Your task to perform on an android device: turn on the 24-hour format for clock Image 0: 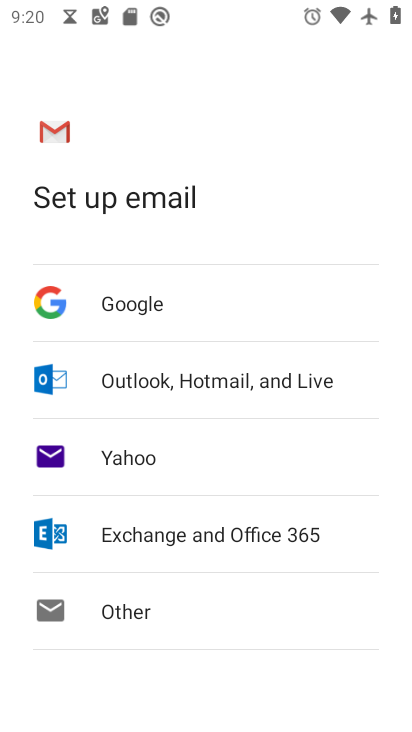
Step 0: press home button
Your task to perform on an android device: turn on the 24-hour format for clock Image 1: 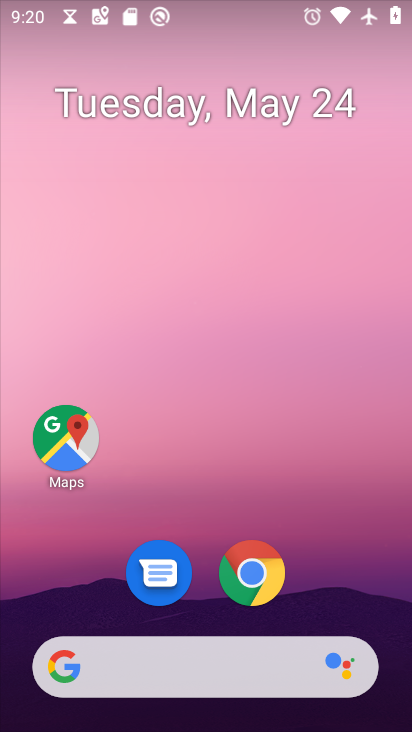
Step 1: drag from (369, 566) to (285, 11)
Your task to perform on an android device: turn on the 24-hour format for clock Image 2: 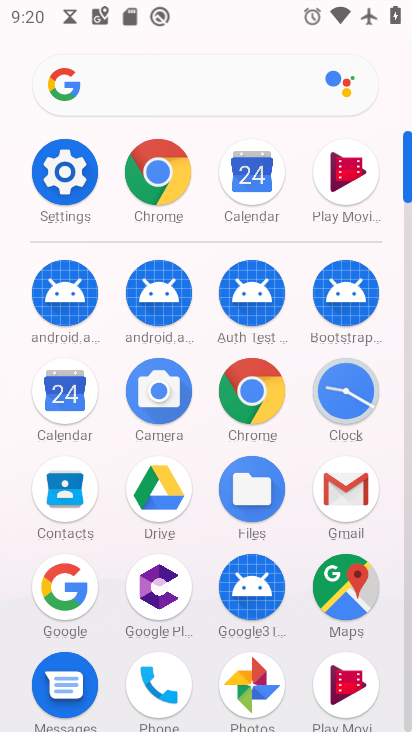
Step 2: click (349, 402)
Your task to perform on an android device: turn on the 24-hour format for clock Image 3: 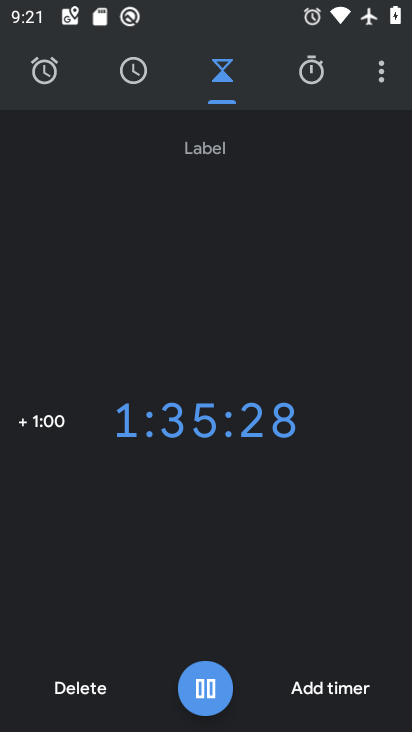
Step 3: click (389, 83)
Your task to perform on an android device: turn on the 24-hour format for clock Image 4: 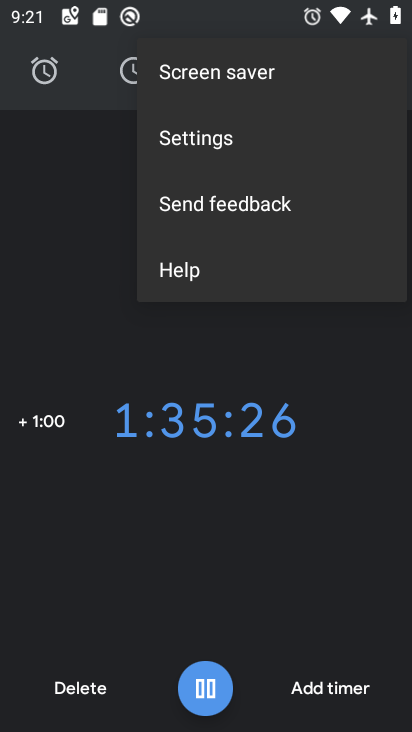
Step 4: click (222, 145)
Your task to perform on an android device: turn on the 24-hour format for clock Image 5: 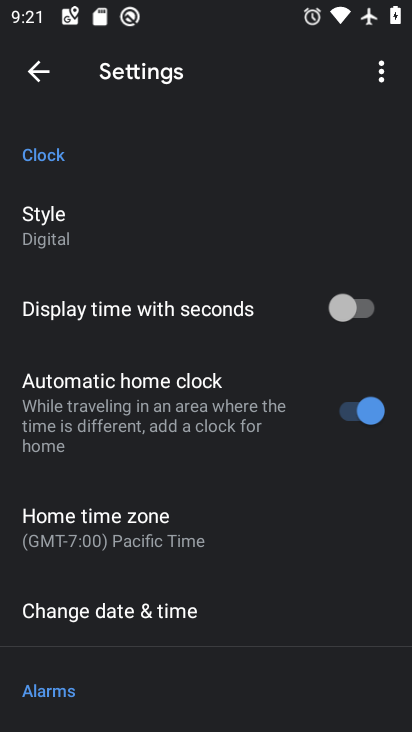
Step 5: drag from (228, 650) to (273, 231)
Your task to perform on an android device: turn on the 24-hour format for clock Image 6: 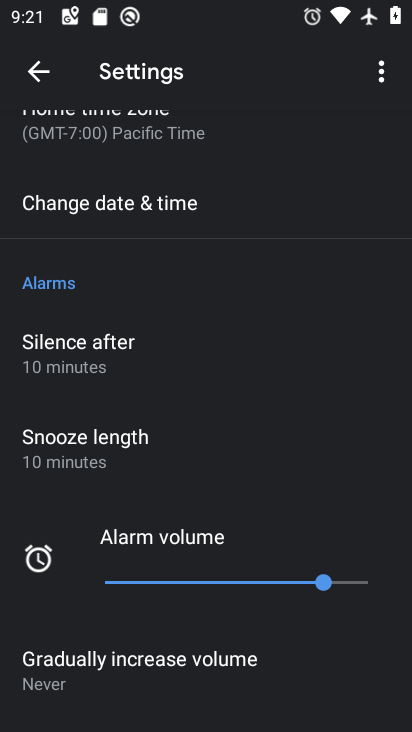
Step 6: drag from (219, 677) to (266, 128)
Your task to perform on an android device: turn on the 24-hour format for clock Image 7: 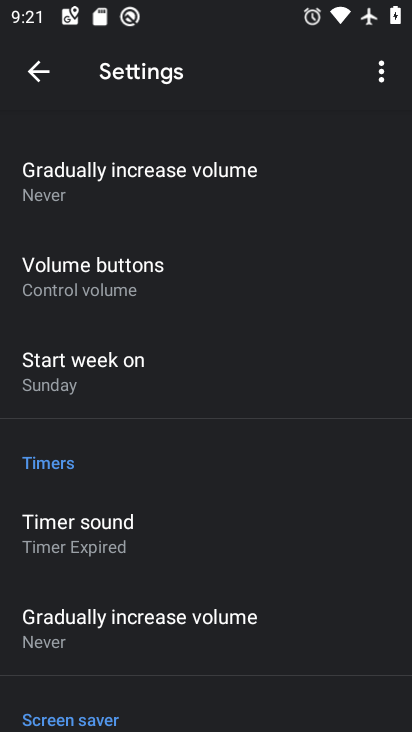
Step 7: drag from (261, 617) to (279, 82)
Your task to perform on an android device: turn on the 24-hour format for clock Image 8: 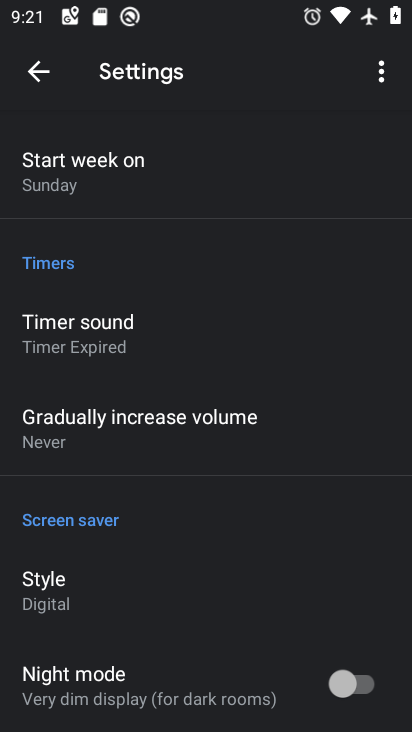
Step 8: drag from (131, 656) to (234, 295)
Your task to perform on an android device: turn on the 24-hour format for clock Image 9: 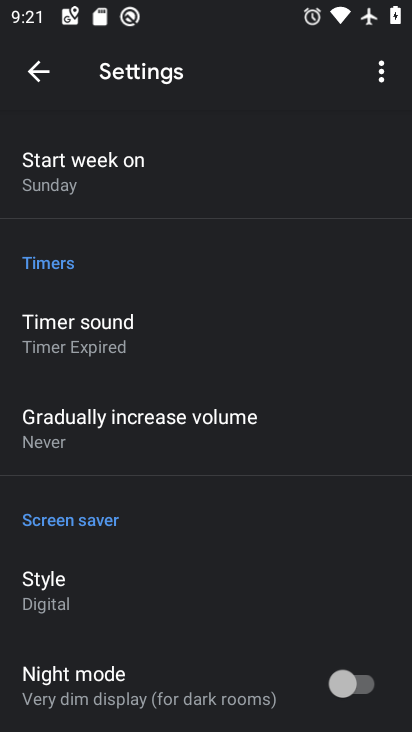
Step 9: drag from (282, 271) to (309, 701)
Your task to perform on an android device: turn on the 24-hour format for clock Image 10: 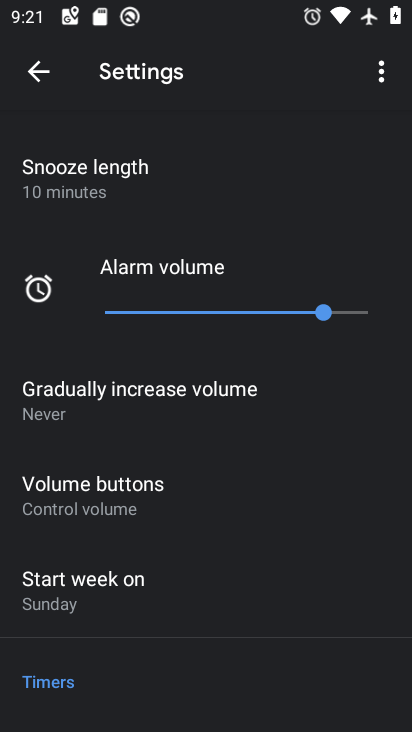
Step 10: drag from (336, 458) to (345, 686)
Your task to perform on an android device: turn on the 24-hour format for clock Image 11: 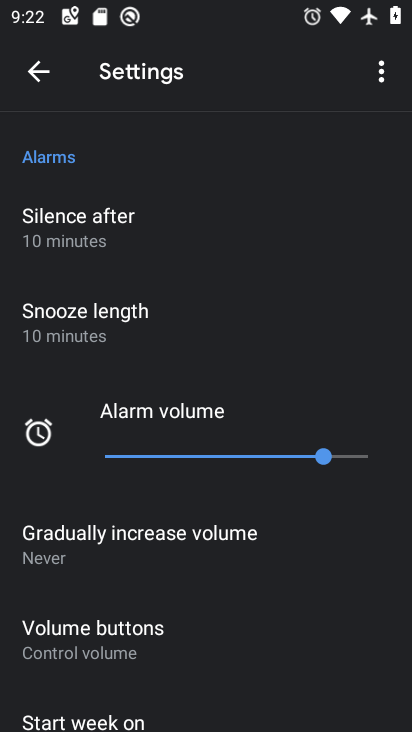
Step 11: drag from (215, 295) to (261, 621)
Your task to perform on an android device: turn on the 24-hour format for clock Image 12: 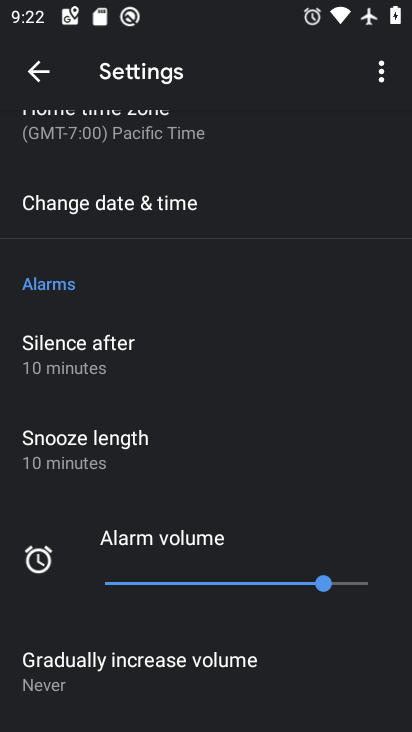
Step 12: click (40, 193)
Your task to perform on an android device: turn on the 24-hour format for clock Image 13: 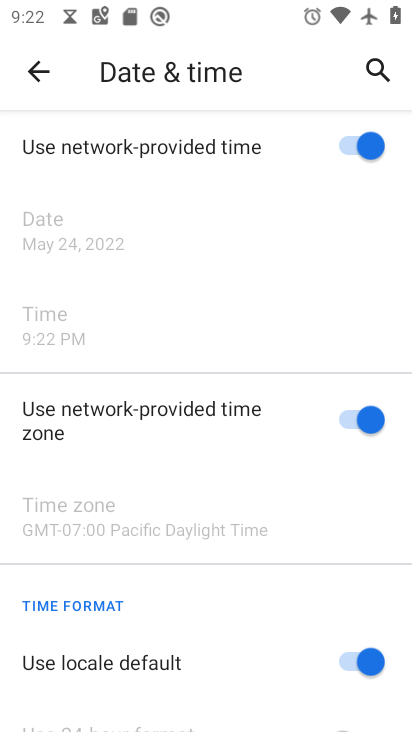
Step 13: task complete